Your task to perform on an android device: check storage Image 0: 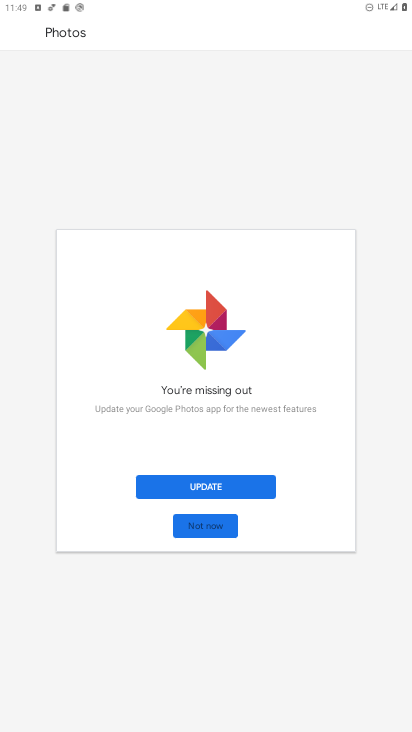
Step 0: press home button
Your task to perform on an android device: check storage Image 1: 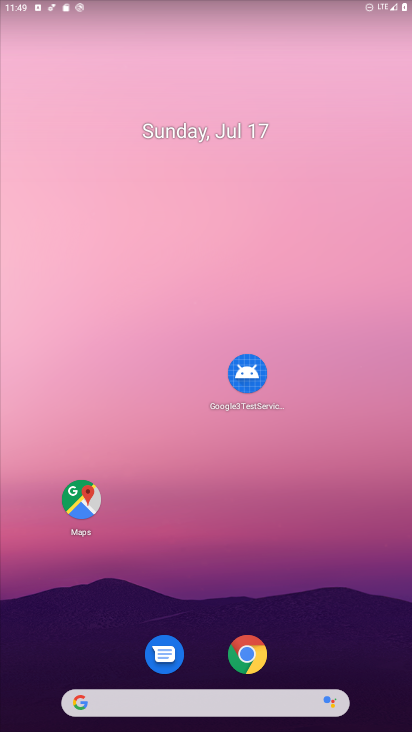
Step 1: drag from (193, 564) to (193, 138)
Your task to perform on an android device: check storage Image 2: 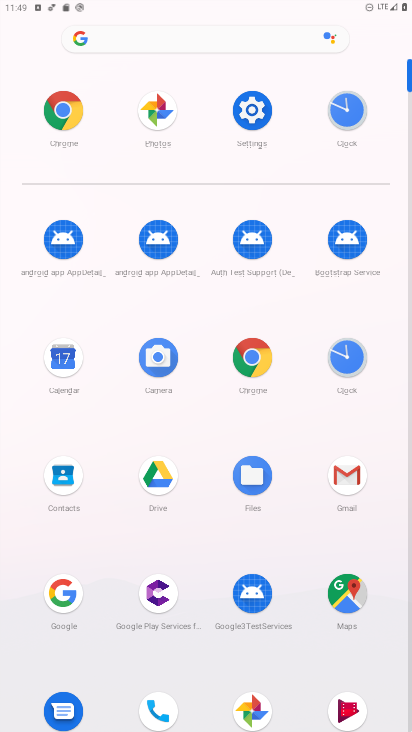
Step 2: click (229, 106)
Your task to perform on an android device: check storage Image 3: 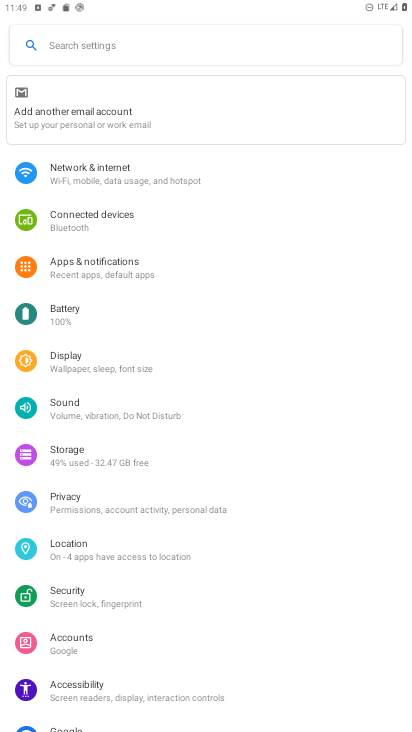
Step 3: click (123, 463)
Your task to perform on an android device: check storage Image 4: 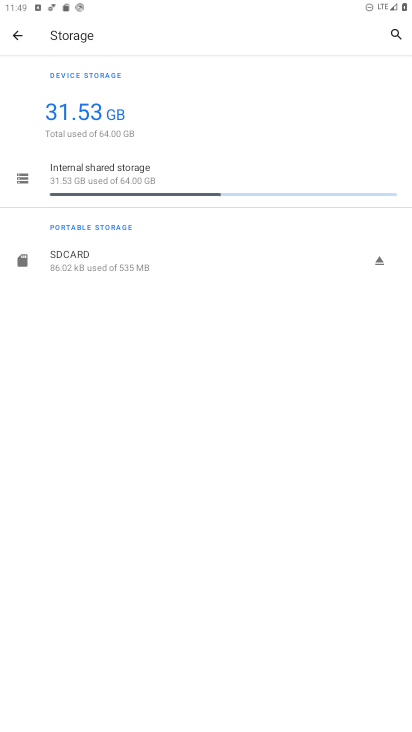
Step 4: click (123, 199)
Your task to perform on an android device: check storage Image 5: 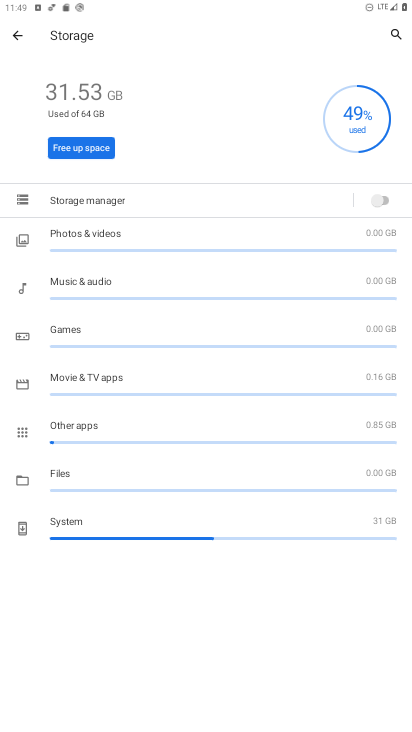
Step 5: task complete